Your task to perform on an android device: Check the news Image 0: 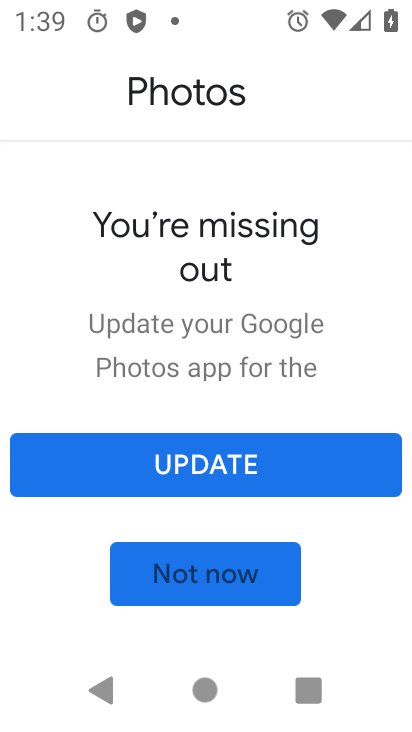
Step 0: press home button
Your task to perform on an android device: Check the news Image 1: 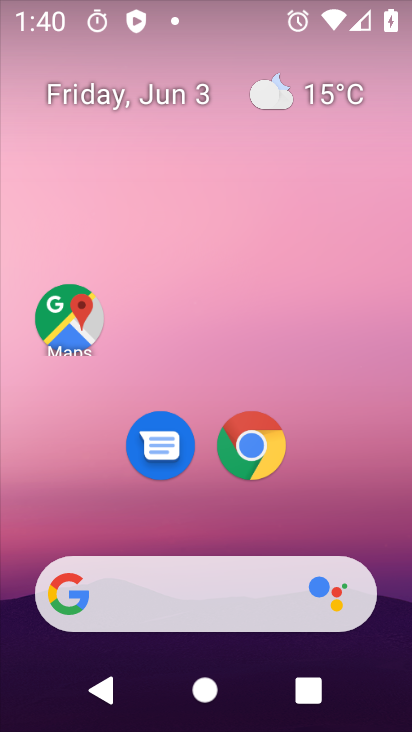
Step 1: click (168, 581)
Your task to perform on an android device: Check the news Image 2: 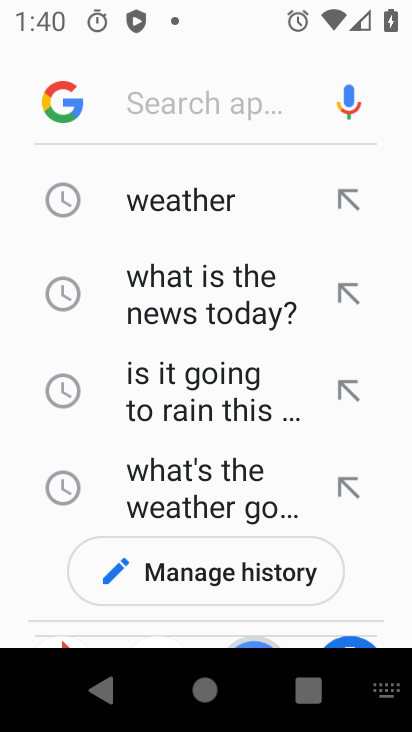
Step 2: click (207, 303)
Your task to perform on an android device: Check the news Image 3: 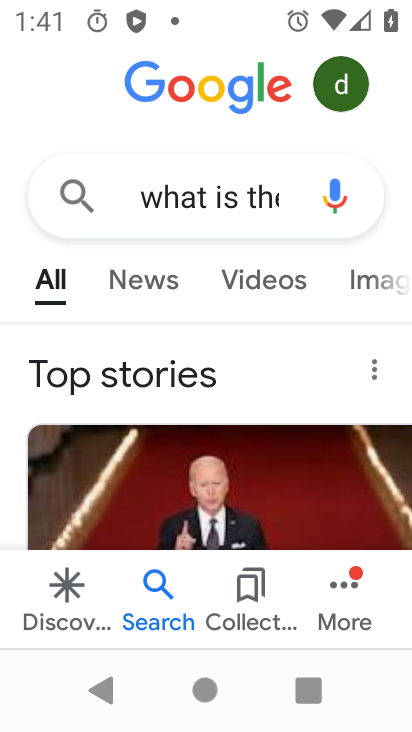
Step 3: task complete